Your task to perform on an android device: toggle notifications settings in the gmail app Image 0: 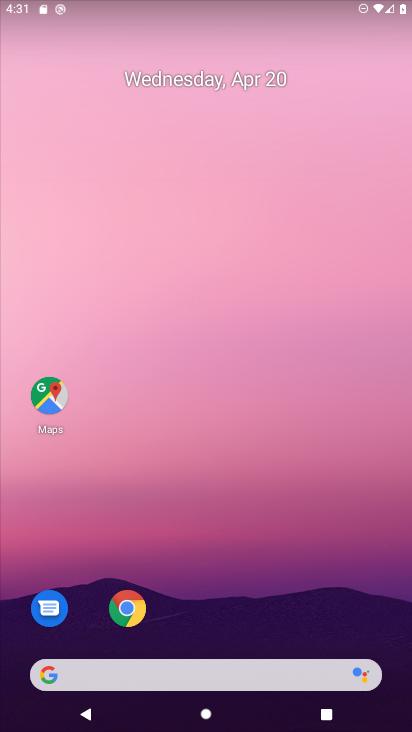
Step 0: drag from (393, 593) to (337, 133)
Your task to perform on an android device: toggle notifications settings in the gmail app Image 1: 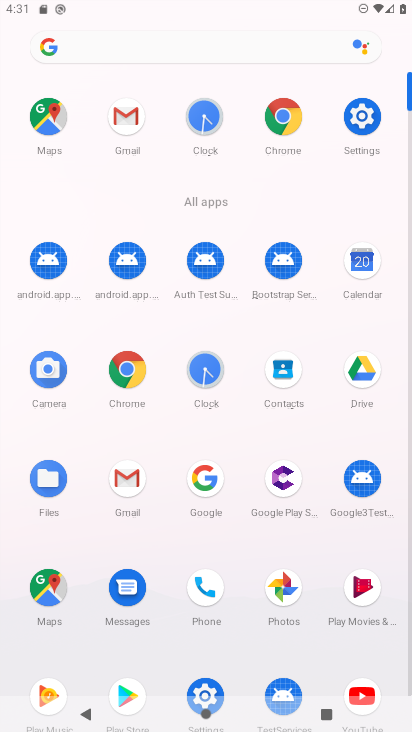
Step 1: click (131, 118)
Your task to perform on an android device: toggle notifications settings in the gmail app Image 2: 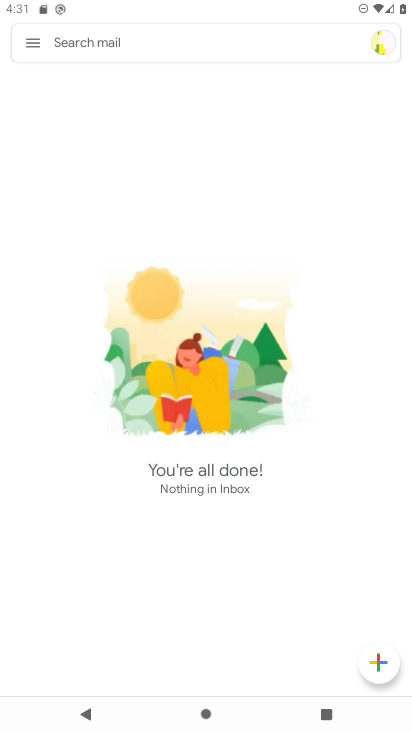
Step 2: click (29, 49)
Your task to perform on an android device: toggle notifications settings in the gmail app Image 3: 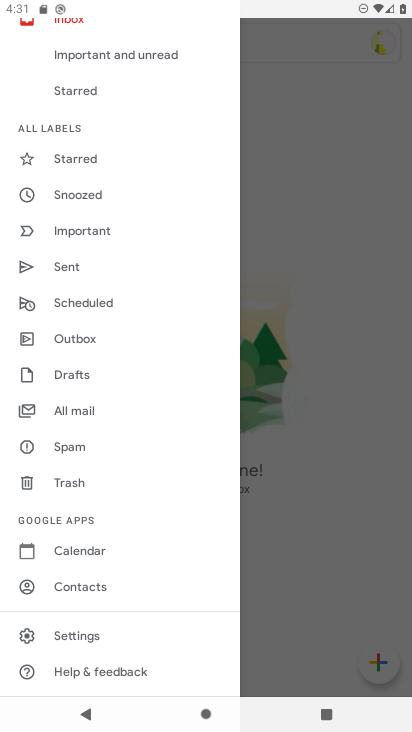
Step 3: click (81, 641)
Your task to perform on an android device: toggle notifications settings in the gmail app Image 4: 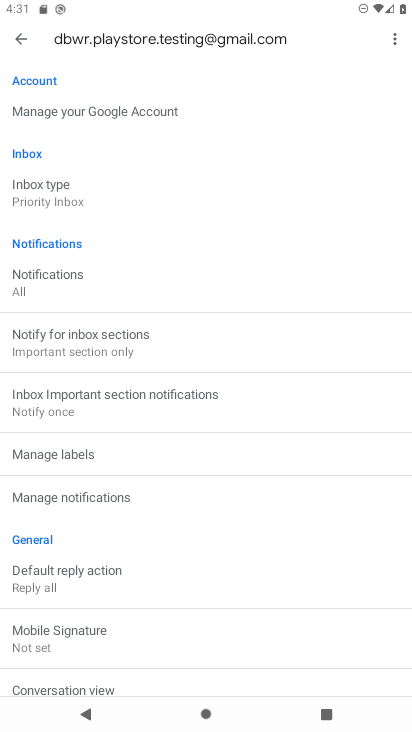
Step 4: click (211, 500)
Your task to perform on an android device: toggle notifications settings in the gmail app Image 5: 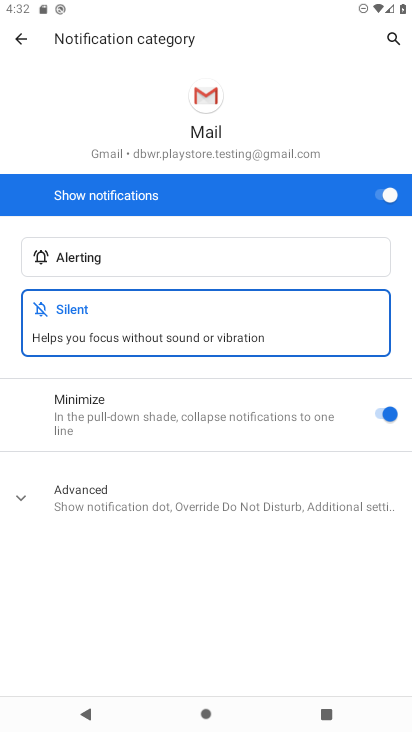
Step 5: click (373, 316)
Your task to perform on an android device: toggle notifications settings in the gmail app Image 6: 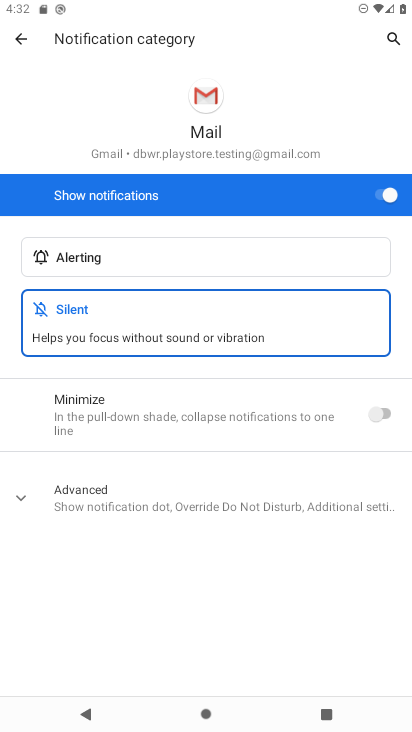
Step 6: click (354, 269)
Your task to perform on an android device: toggle notifications settings in the gmail app Image 7: 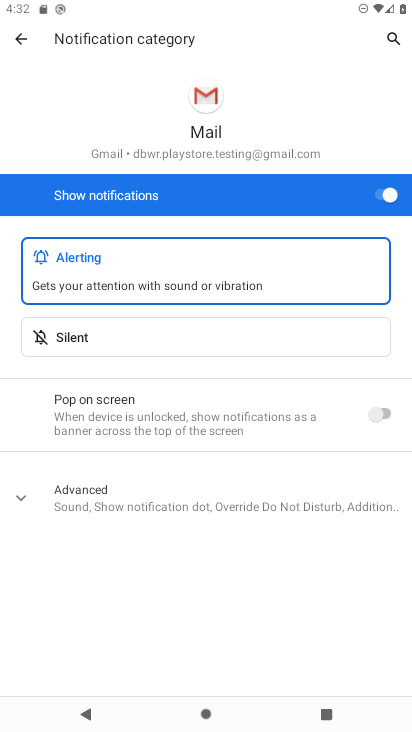
Step 7: task complete